Your task to perform on an android device: stop showing notifications on the lock screen Image 0: 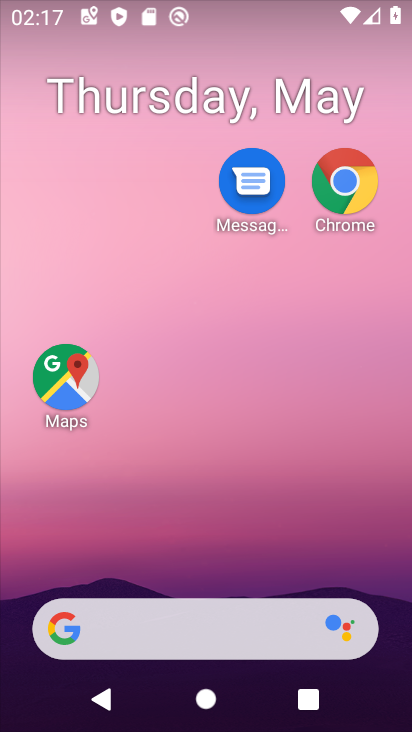
Step 0: drag from (246, 523) to (279, 42)
Your task to perform on an android device: stop showing notifications on the lock screen Image 1: 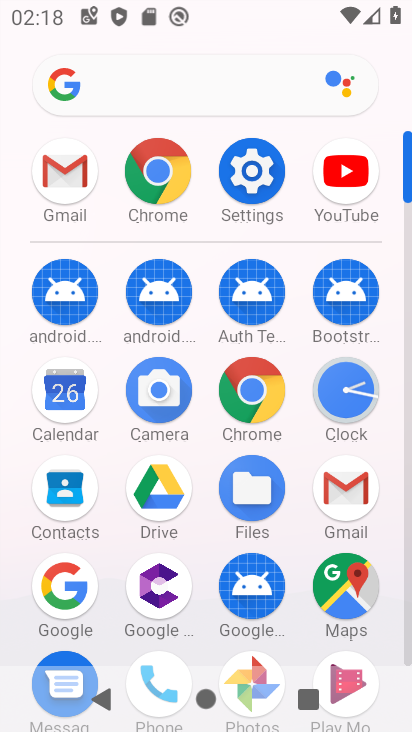
Step 1: click (258, 176)
Your task to perform on an android device: stop showing notifications on the lock screen Image 2: 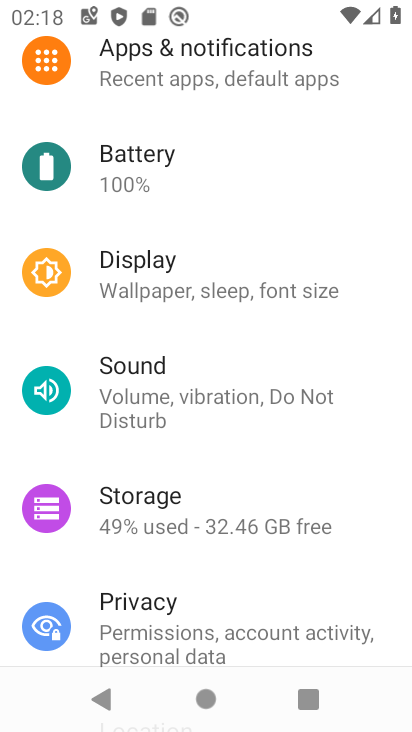
Step 2: click (221, 49)
Your task to perform on an android device: stop showing notifications on the lock screen Image 3: 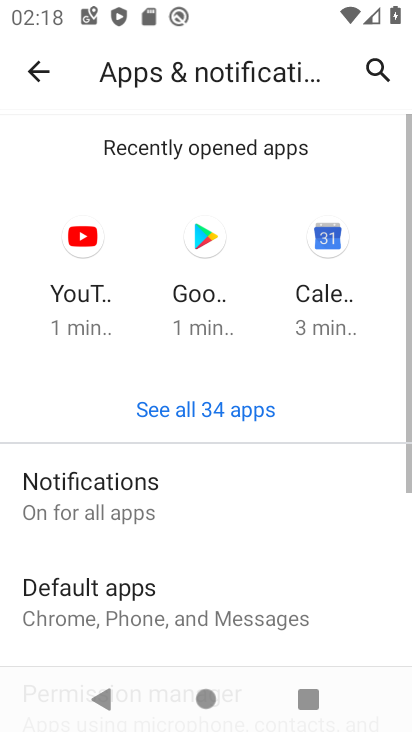
Step 3: drag from (255, 381) to (255, 121)
Your task to perform on an android device: stop showing notifications on the lock screen Image 4: 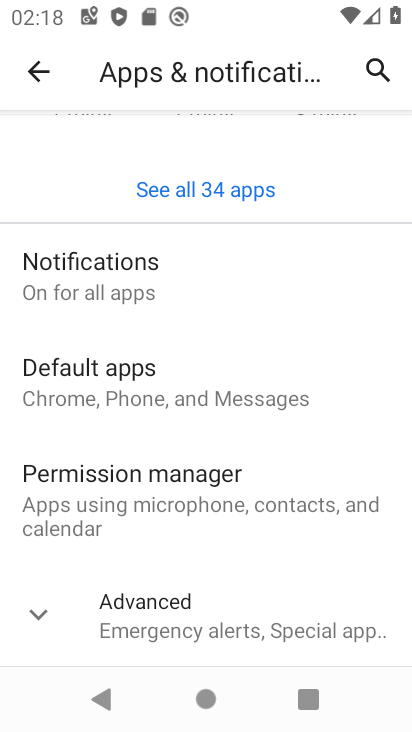
Step 4: click (102, 291)
Your task to perform on an android device: stop showing notifications on the lock screen Image 5: 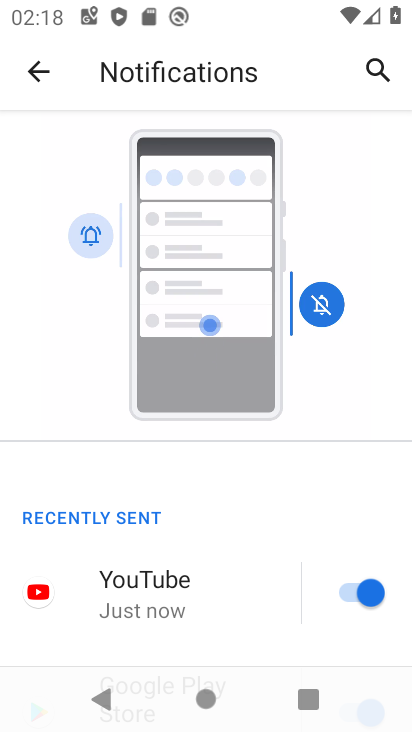
Step 5: drag from (238, 661) to (287, 81)
Your task to perform on an android device: stop showing notifications on the lock screen Image 6: 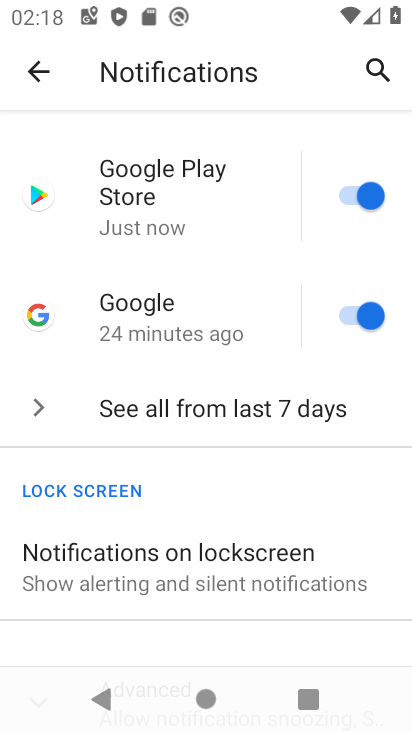
Step 6: drag from (247, 577) to (231, 397)
Your task to perform on an android device: stop showing notifications on the lock screen Image 7: 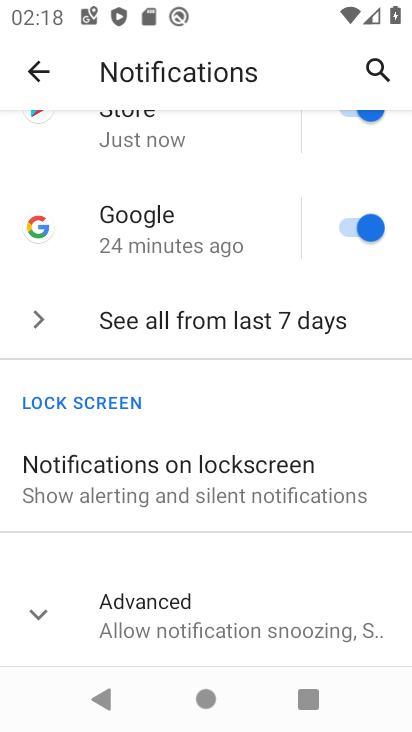
Step 7: click (236, 473)
Your task to perform on an android device: stop showing notifications on the lock screen Image 8: 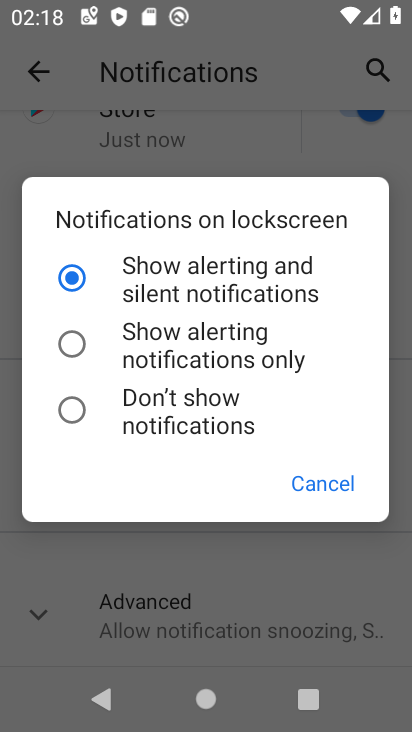
Step 8: click (67, 413)
Your task to perform on an android device: stop showing notifications on the lock screen Image 9: 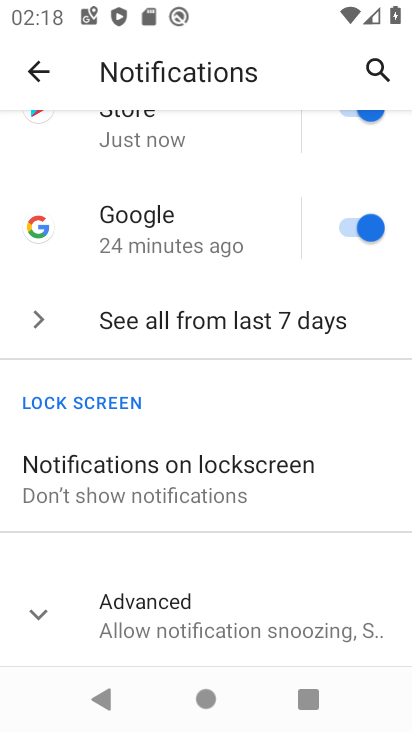
Step 9: task complete